Your task to perform on an android device: Open calendar and show me the second week of next month Image 0: 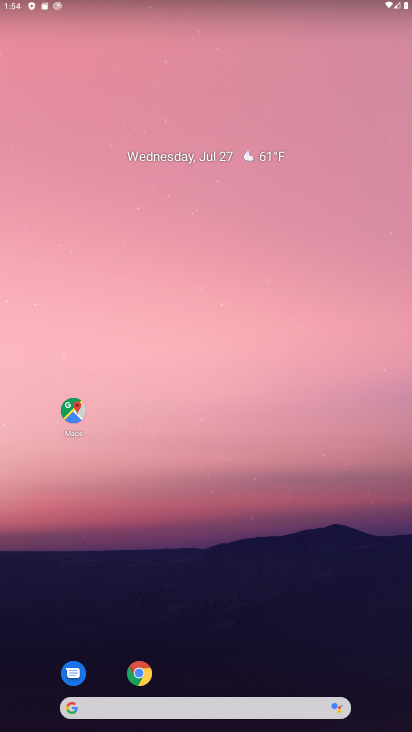
Step 0: click (218, 163)
Your task to perform on an android device: Open calendar and show me the second week of next month Image 1: 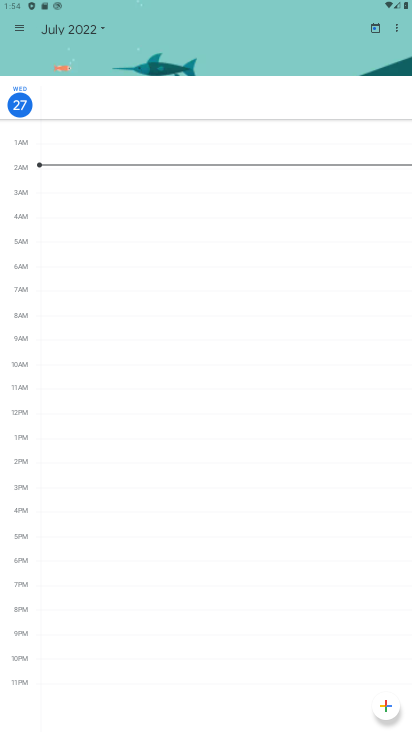
Step 1: click (95, 35)
Your task to perform on an android device: Open calendar and show me the second week of next month Image 2: 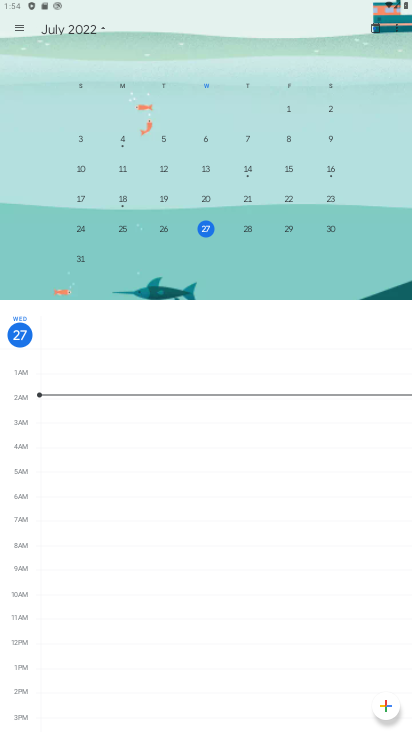
Step 2: drag from (385, 270) to (24, 221)
Your task to perform on an android device: Open calendar and show me the second week of next month Image 3: 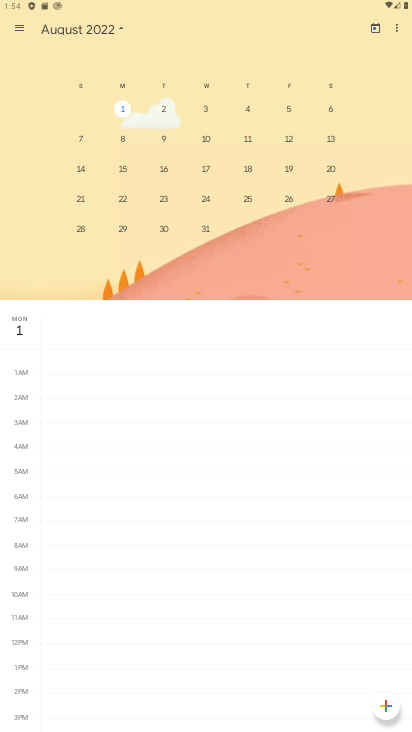
Step 3: click (124, 141)
Your task to perform on an android device: Open calendar and show me the second week of next month Image 4: 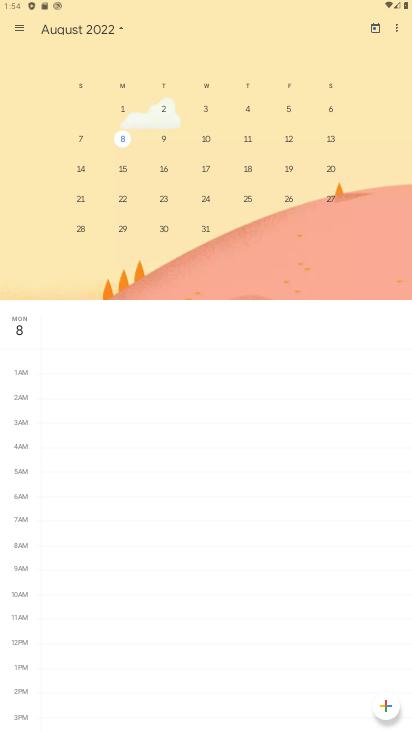
Step 4: task complete